Your task to perform on an android device: Is it going to rain tomorrow? Image 0: 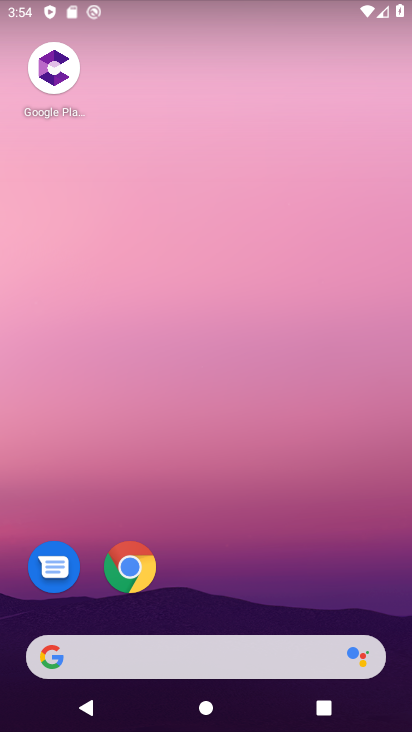
Step 0: drag from (252, 476) to (285, 101)
Your task to perform on an android device: Is it going to rain tomorrow? Image 1: 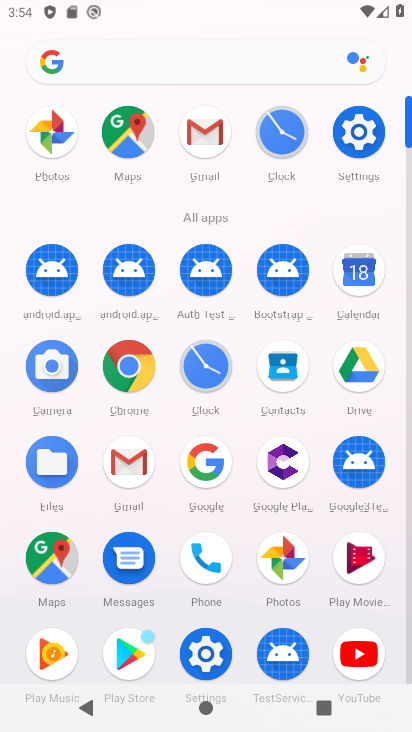
Step 1: click (129, 344)
Your task to perform on an android device: Is it going to rain tomorrow? Image 2: 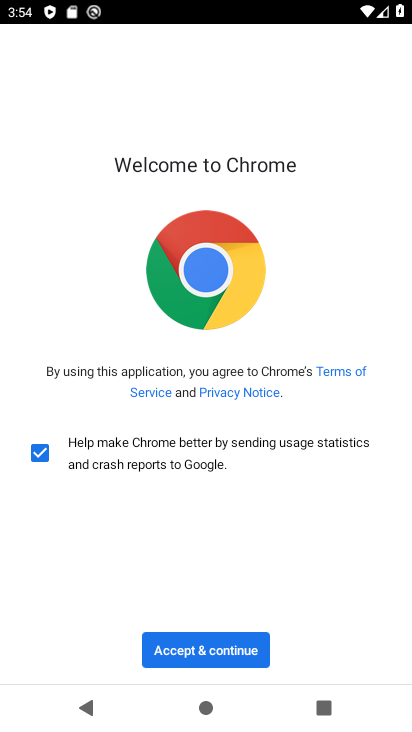
Step 2: click (208, 655)
Your task to perform on an android device: Is it going to rain tomorrow? Image 3: 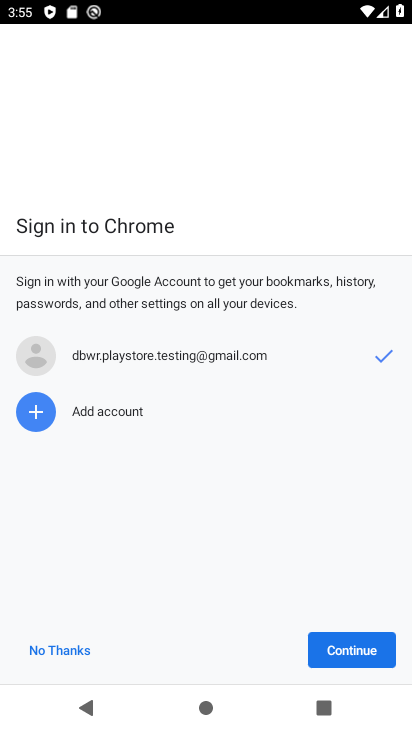
Step 3: click (356, 647)
Your task to perform on an android device: Is it going to rain tomorrow? Image 4: 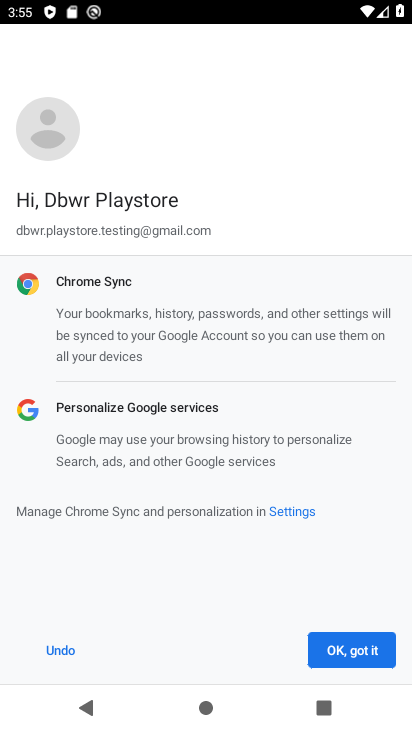
Step 4: click (356, 647)
Your task to perform on an android device: Is it going to rain tomorrow? Image 5: 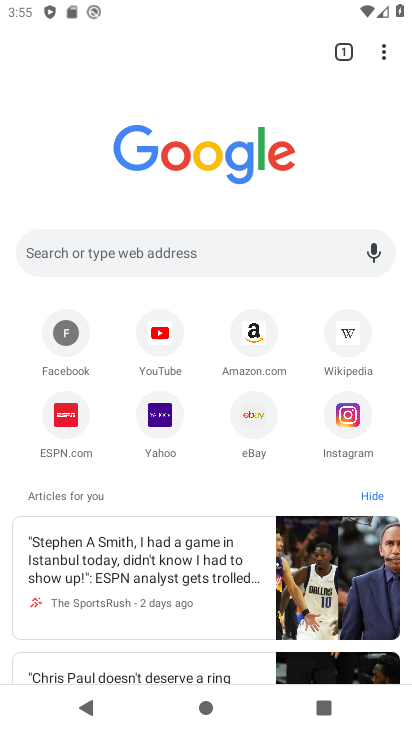
Step 5: click (100, 246)
Your task to perform on an android device: Is it going to rain tomorrow? Image 6: 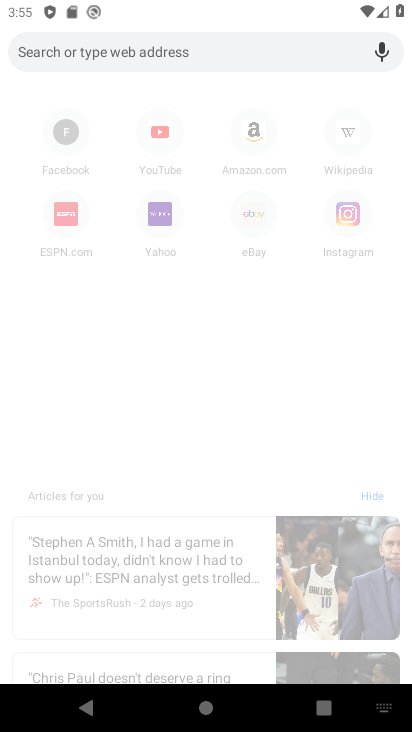
Step 6: type "Is it going to rain tomorrow?"
Your task to perform on an android device: Is it going to rain tomorrow? Image 7: 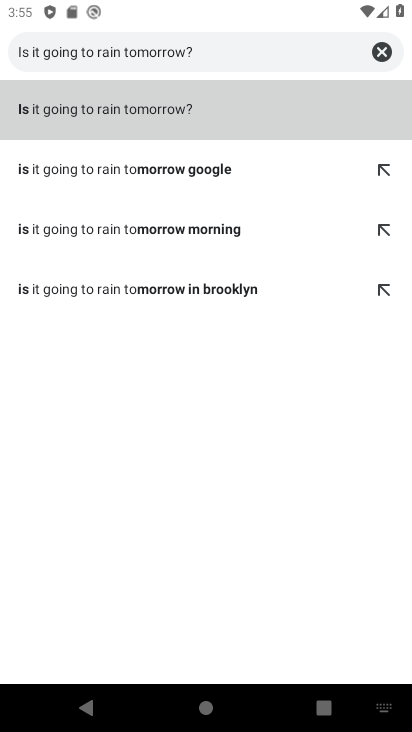
Step 7: click (156, 115)
Your task to perform on an android device: Is it going to rain tomorrow? Image 8: 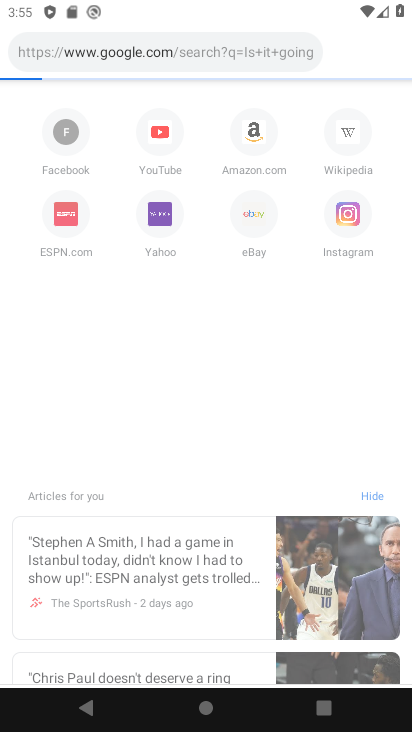
Step 8: click (137, 100)
Your task to perform on an android device: Is it going to rain tomorrow? Image 9: 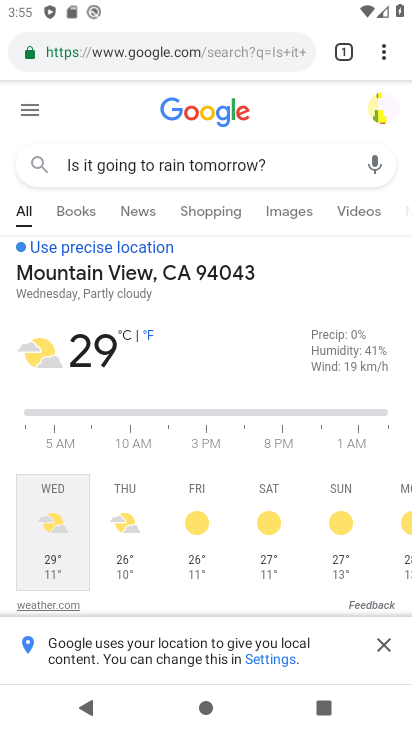
Step 9: task complete